Your task to perform on an android device: turn on javascript in the chrome app Image 0: 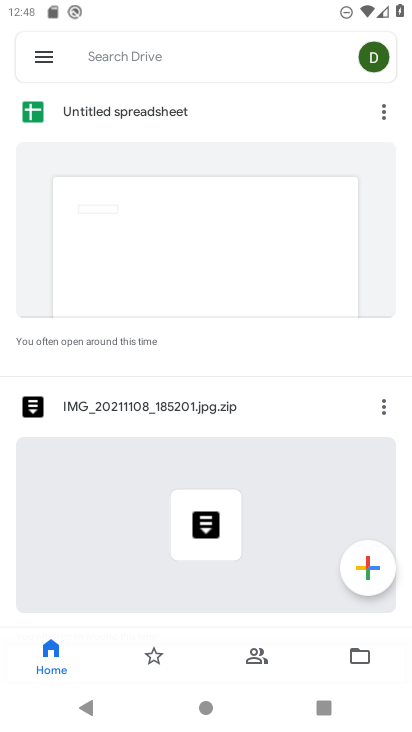
Step 0: press home button
Your task to perform on an android device: turn on javascript in the chrome app Image 1: 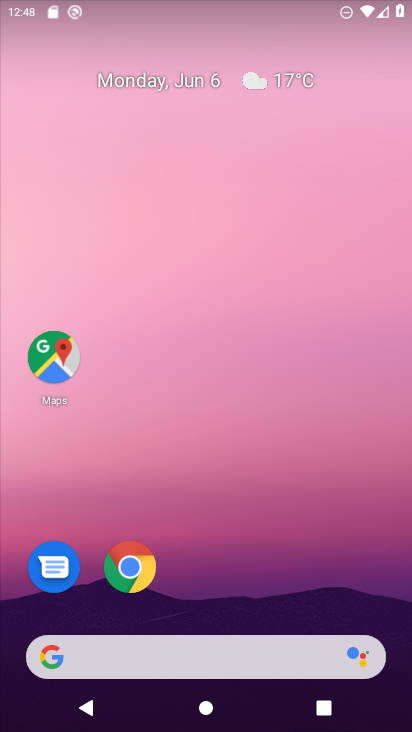
Step 1: click (128, 568)
Your task to perform on an android device: turn on javascript in the chrome app Image 2: 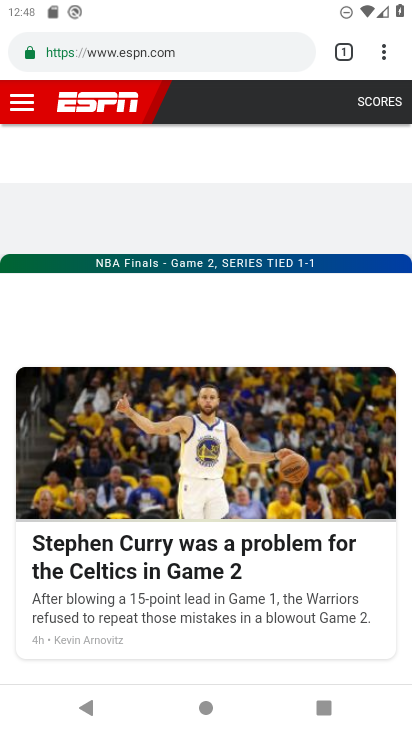
Step 2: click (384, 58)
Your task to perform on an android device: turn on javascript in the chrome app Image 3: 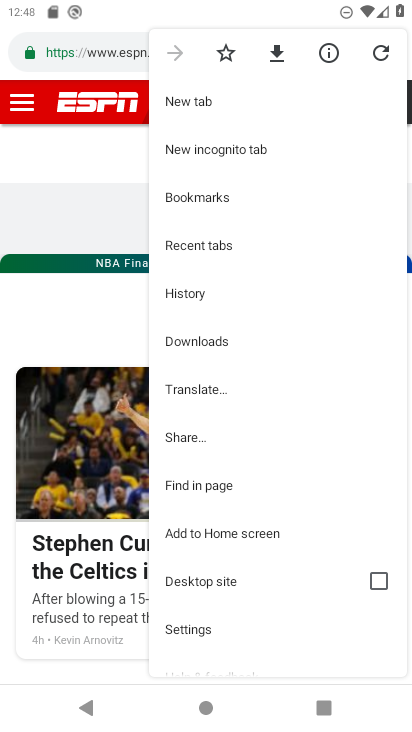
Step 3: click (202, 628)
Your task to perform on an android device: turn on javascript in the chrome app Image 4: 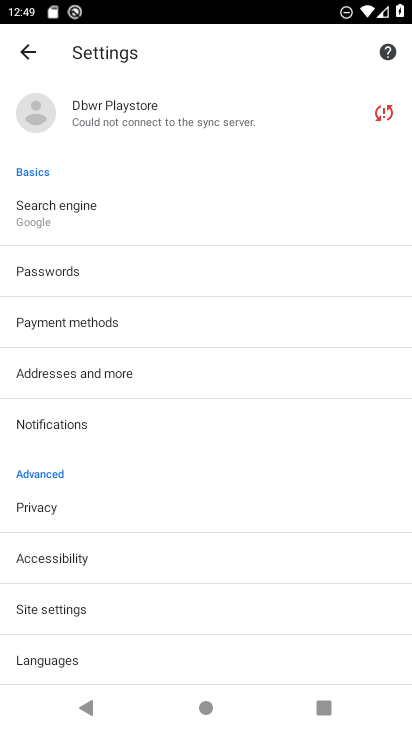
Step 4: click (78, 609)
Your task to perform on an android device: turn on javascript in the chrome app Image 5: 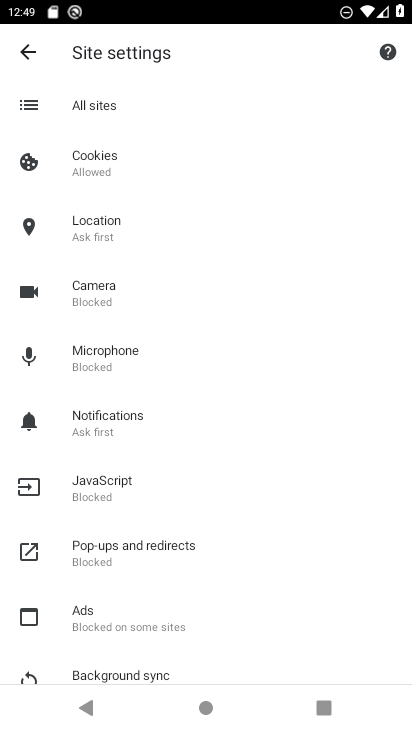
Step 5: click (98, 478)
Your task to perform on an android device: turn on javascript in the chrome app Image 6: 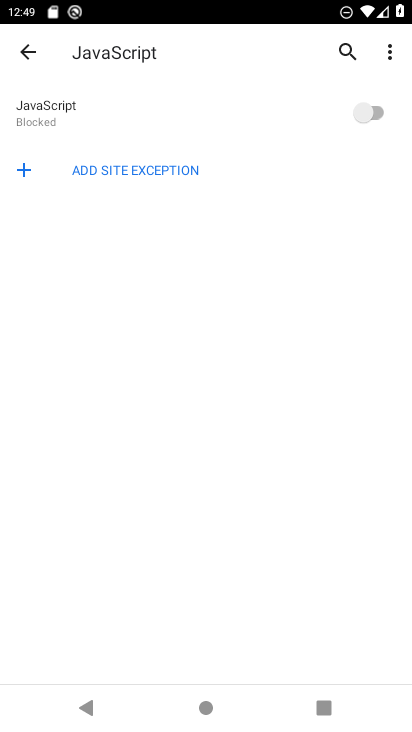
Step 6: click (377, 106)
Your task to perform on an android device: turn on javascript in the chrome app Image 7: 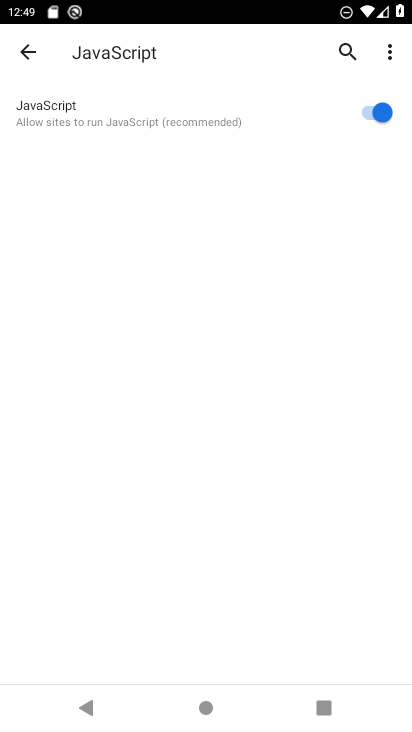
Step 7: task complete